Your task to perform on an android device: Open Android settings Image 0: 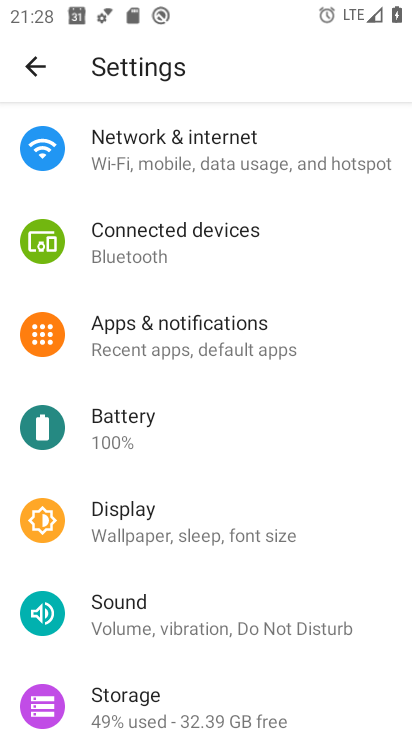
Step 0: drag from (325, 609) to (315, 2)
Your task to perform on an android device: Open Android settings Image 1: 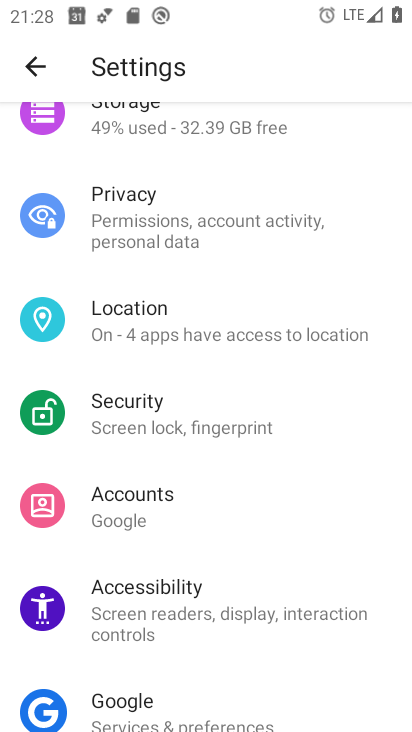
Step 1: drag from (211, 645) to (231, 34)
Your task to perform on an android device: Open Android settings Image 2: 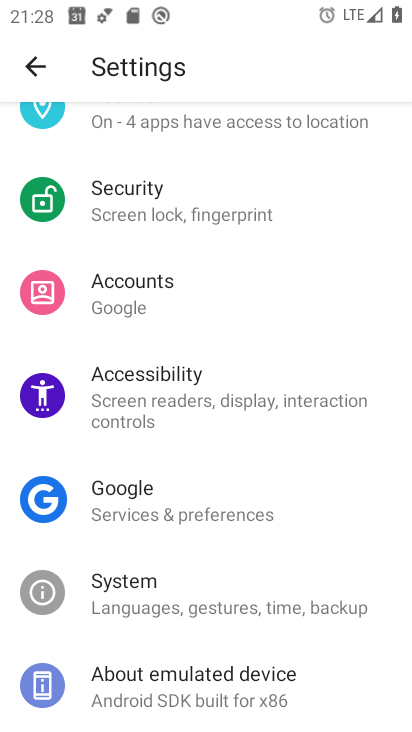
Step 2: click (213, 674)
Your task to perform on an android device: Open Android settings Image 3: 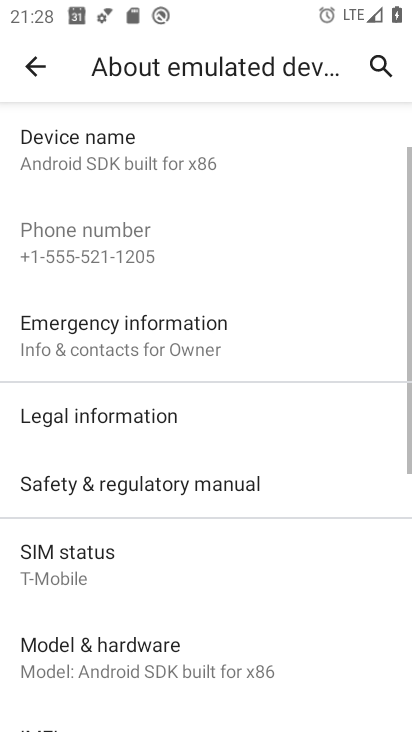
Step 3: task complete